Your task to perform on an android device: open app "NewsBreak: Local News & Alerts" (install if not already installed) and go to login screen Image 0: 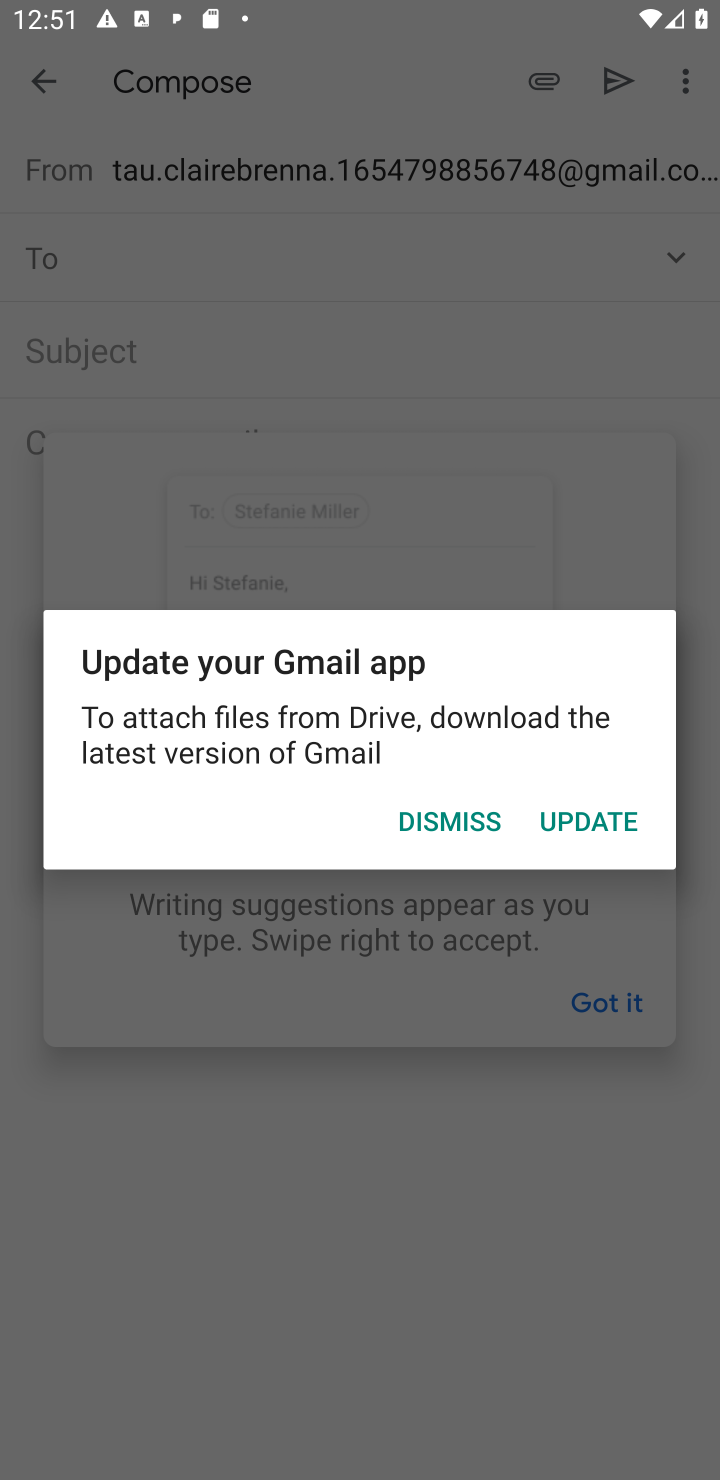
Step 0: press home button
Your task to perform on an android device: open app "NewsBreak: Local News & Alerts" (install if not already installed) and go to login screen Image 1: 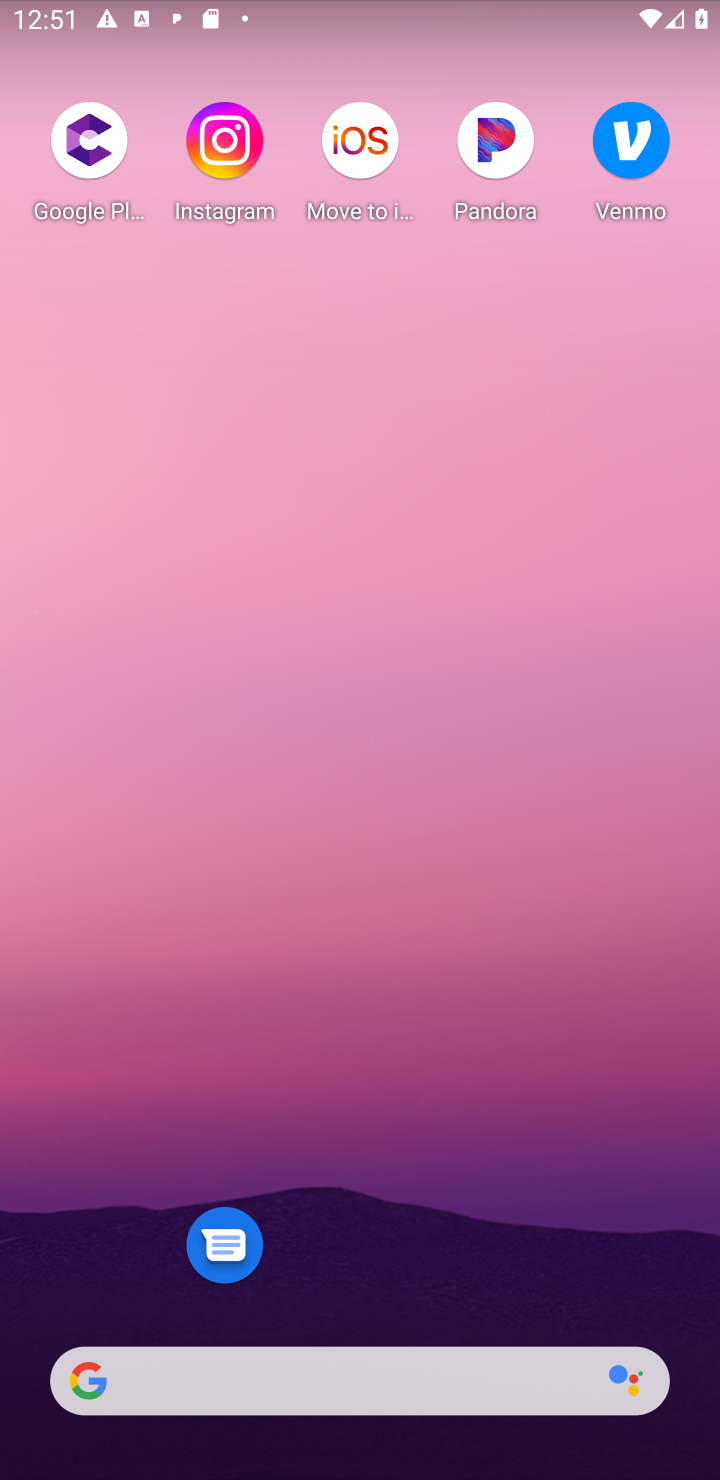
Step 1: drag from (415, 1216) to (385, 415)
Your task to perform on an android device: open app "NewsBreak: Local News & Alerts" (install if not already installed) and go to login screen Image 2: 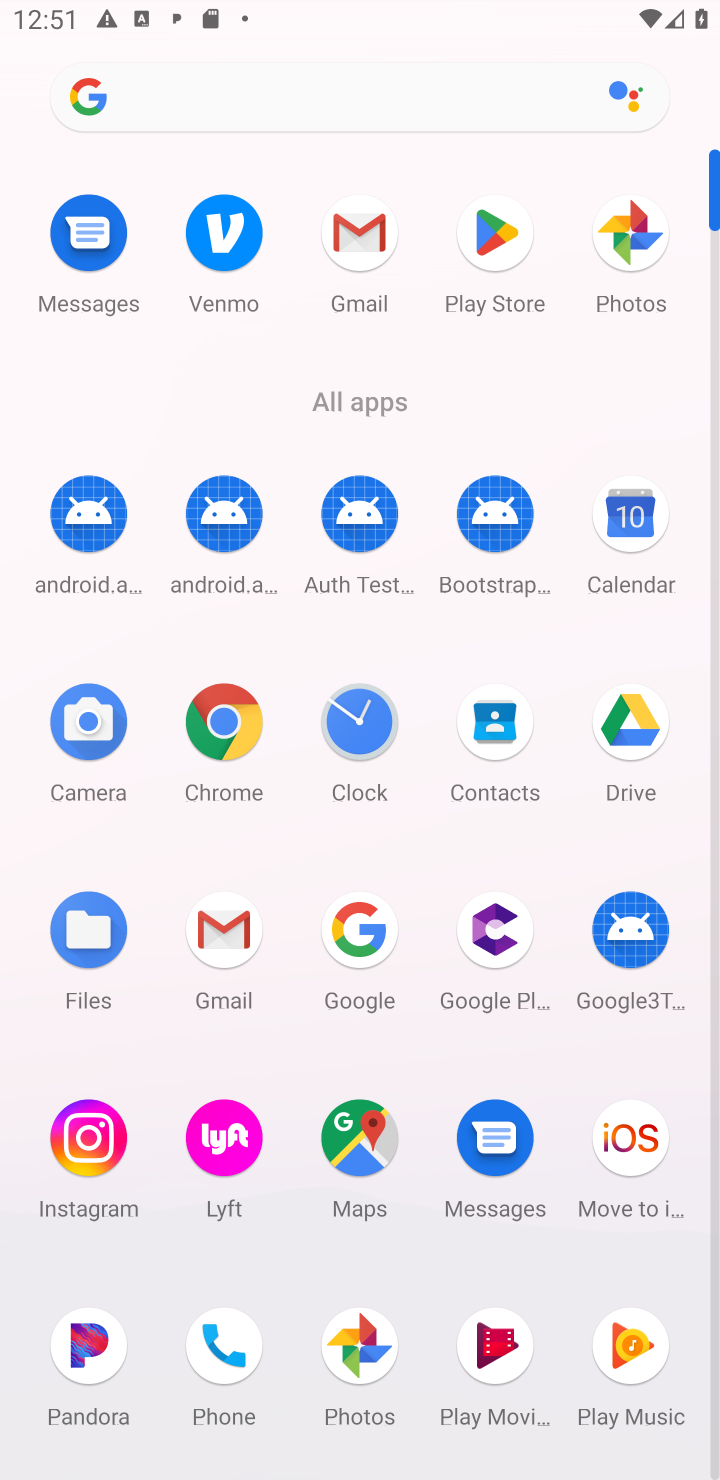
Step 2: click (484, 227)
Your task to perform on an android device: open app "NewsBreak: Local News & Alerts" (install if not already installed) and go to login screen Image 3: 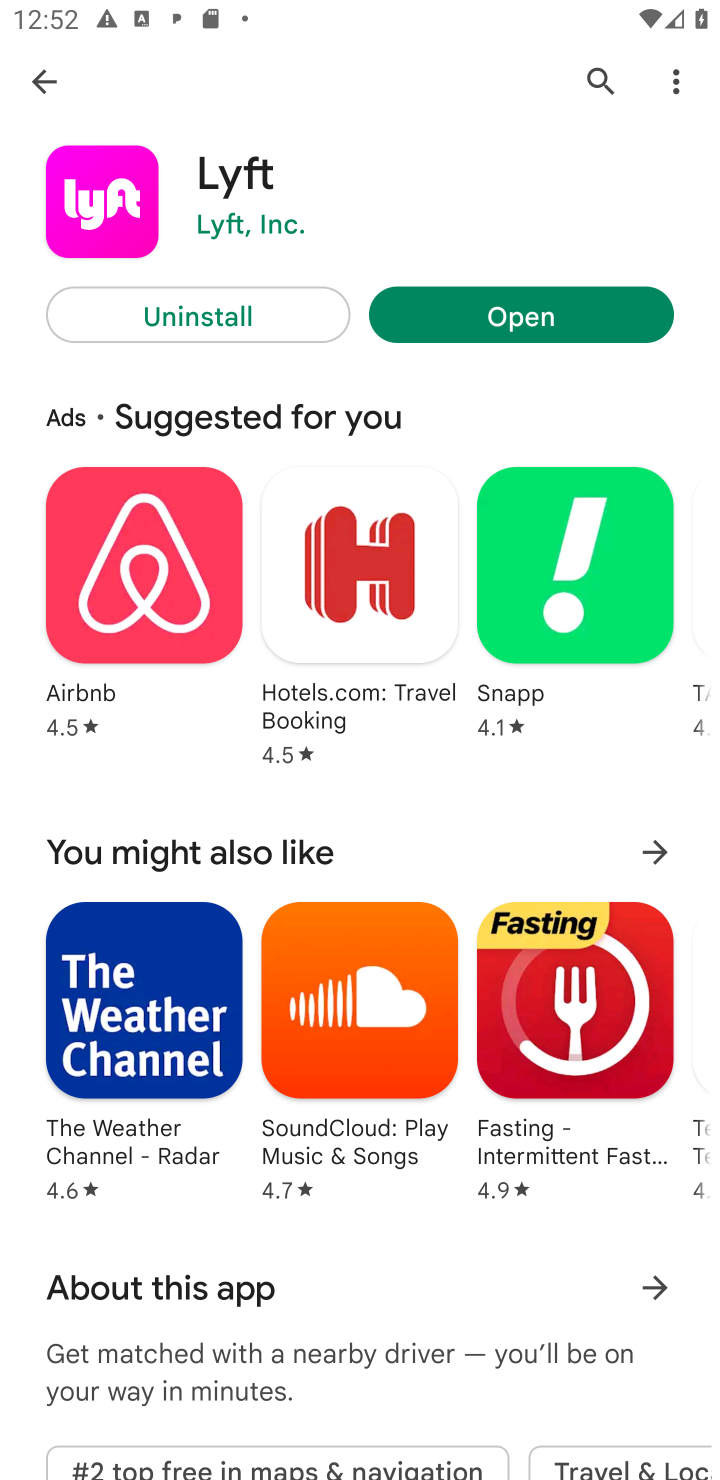
Step 3: click (594, 73)
Your task to perform on an android device: open app "NewsBreak: Local News & Alerts" (install if not already installed) and go to login screen Image 4: 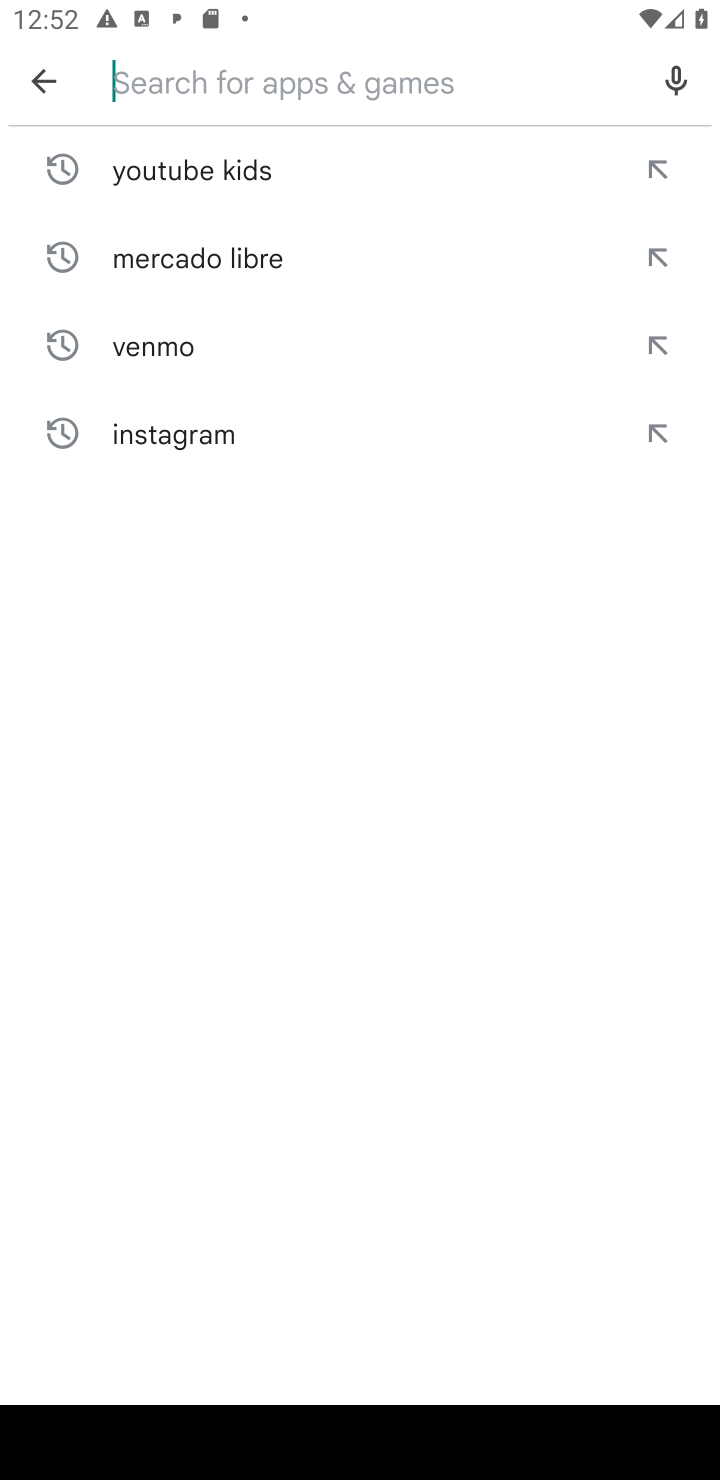
Step 4: click (141, 70)
Your task to perform on an android device: open app "NewsBreak: Local News & Alerts" (install if not already installed) and go to login screen Image 5: 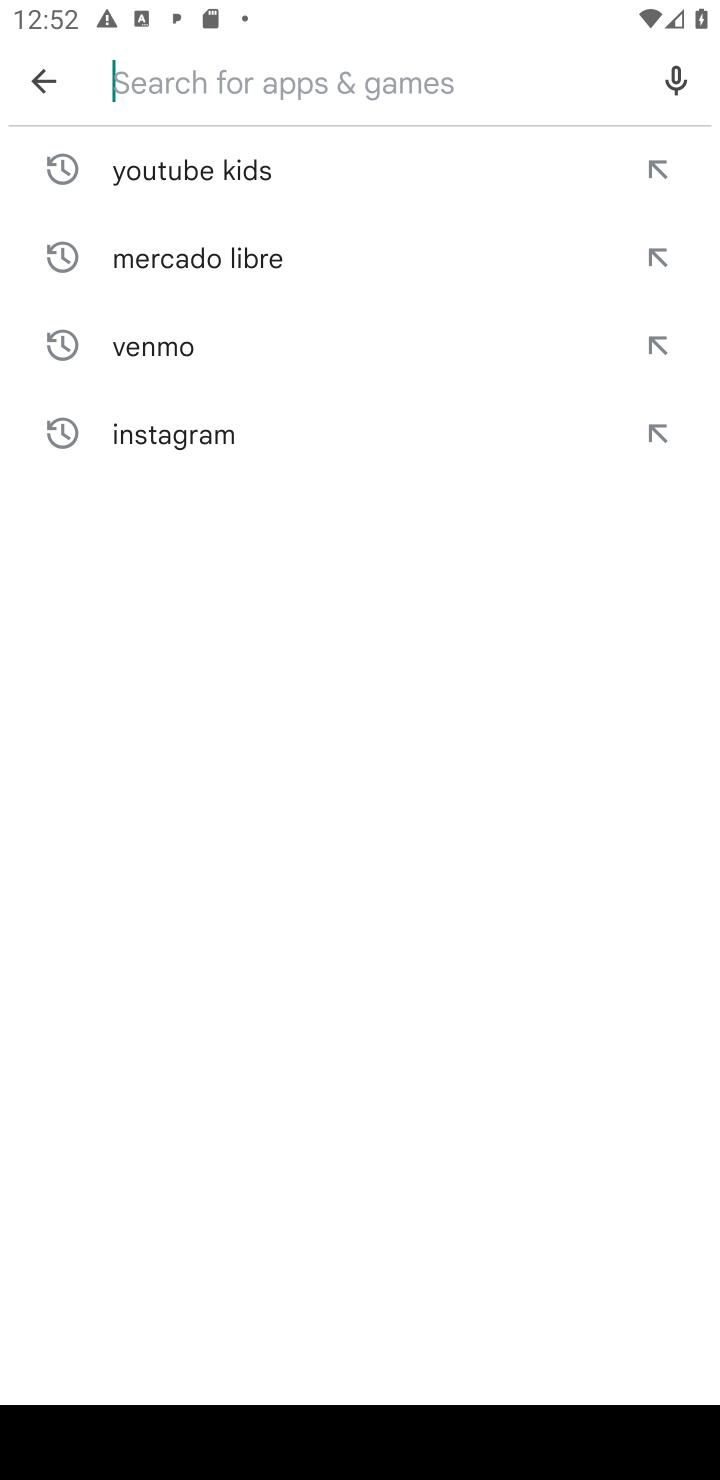
Step 5: type "NewsBreak: Local News & Alerts"
Your task to perform on an android device: open app "NewsBreak: Local News & Alerts" (install if not already installed) and go to login screen Image 6: 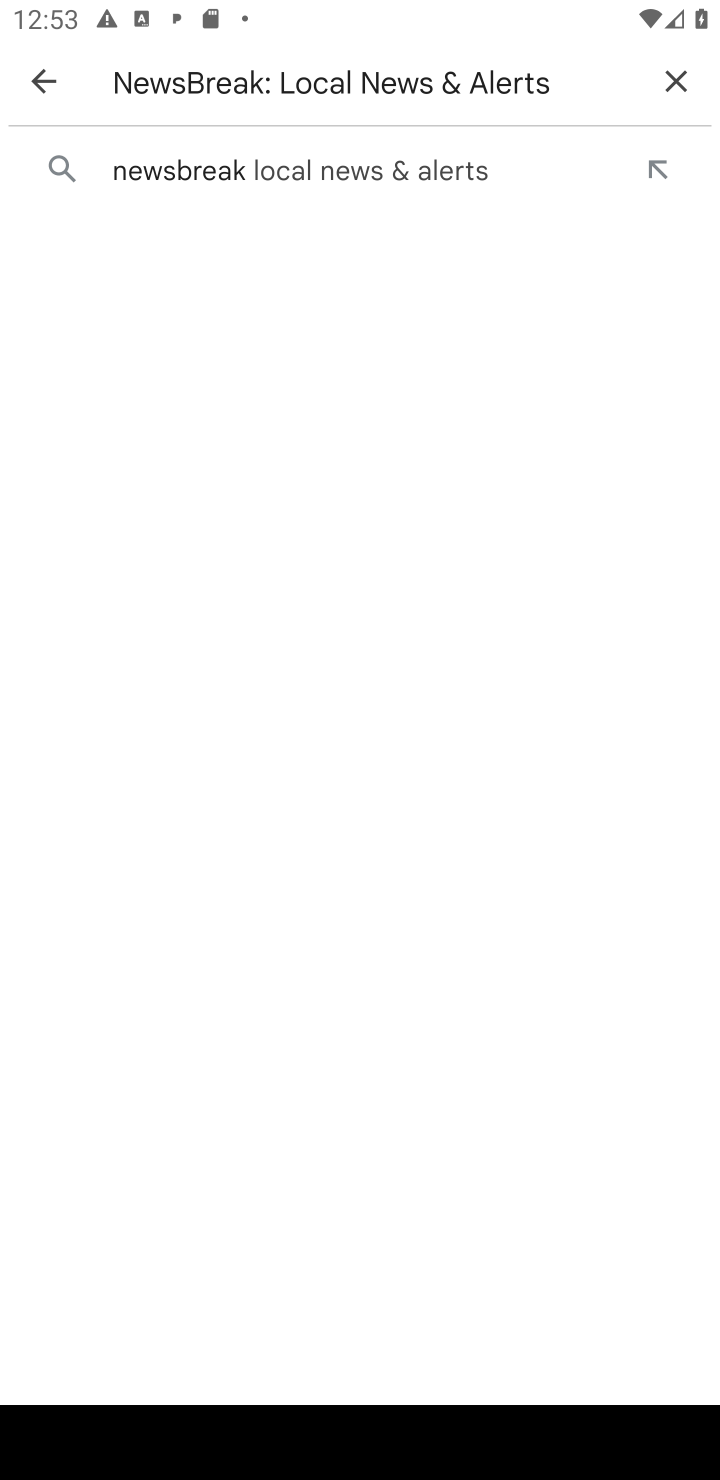
Step 6: click (197, 169)
Your task to perform on an android device: open app "NewsBreak: Local News & Alerts" (install if not already installed) and go to login screen Image 7: 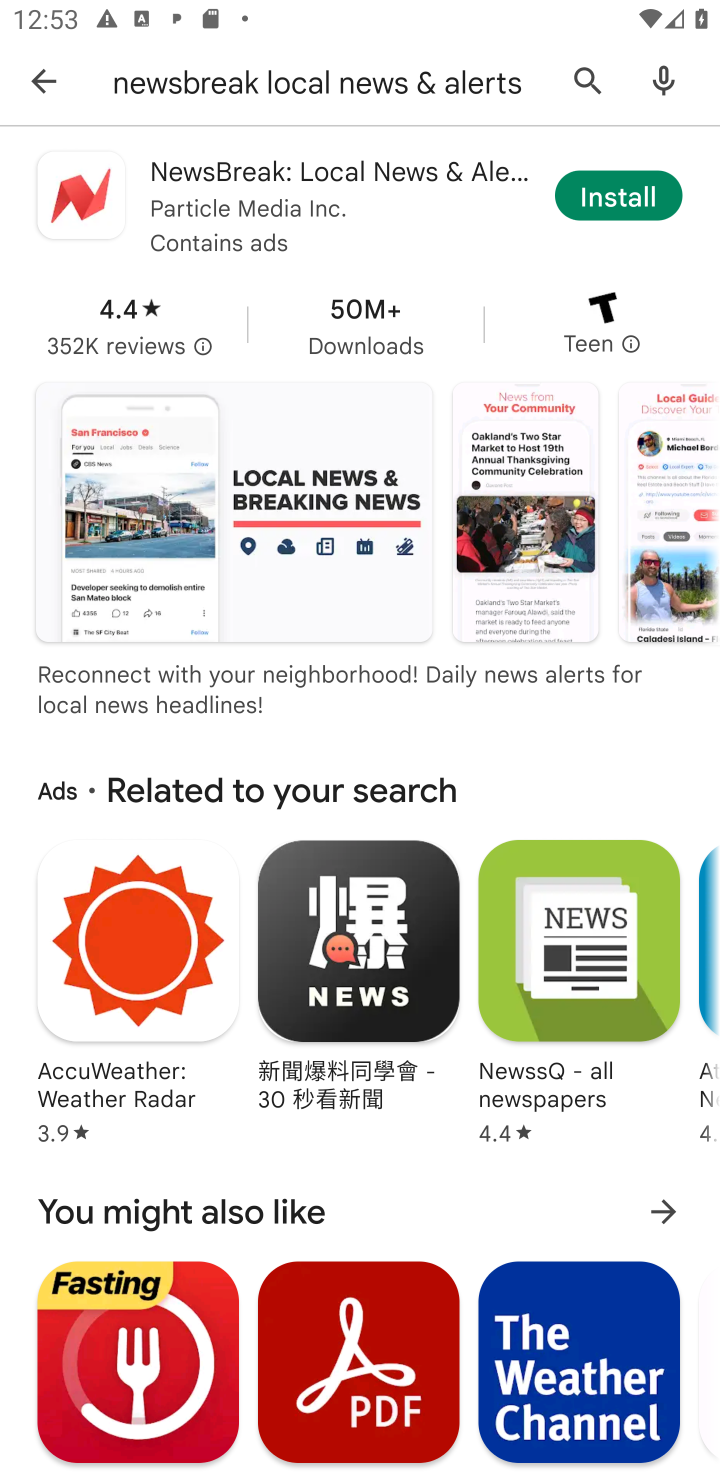
Step 7: click (608, 193)
Your task to perform on an android device: open app "NewsBreak: Local News & Alerts" (install if not already installed) and go to login screen Image 8: 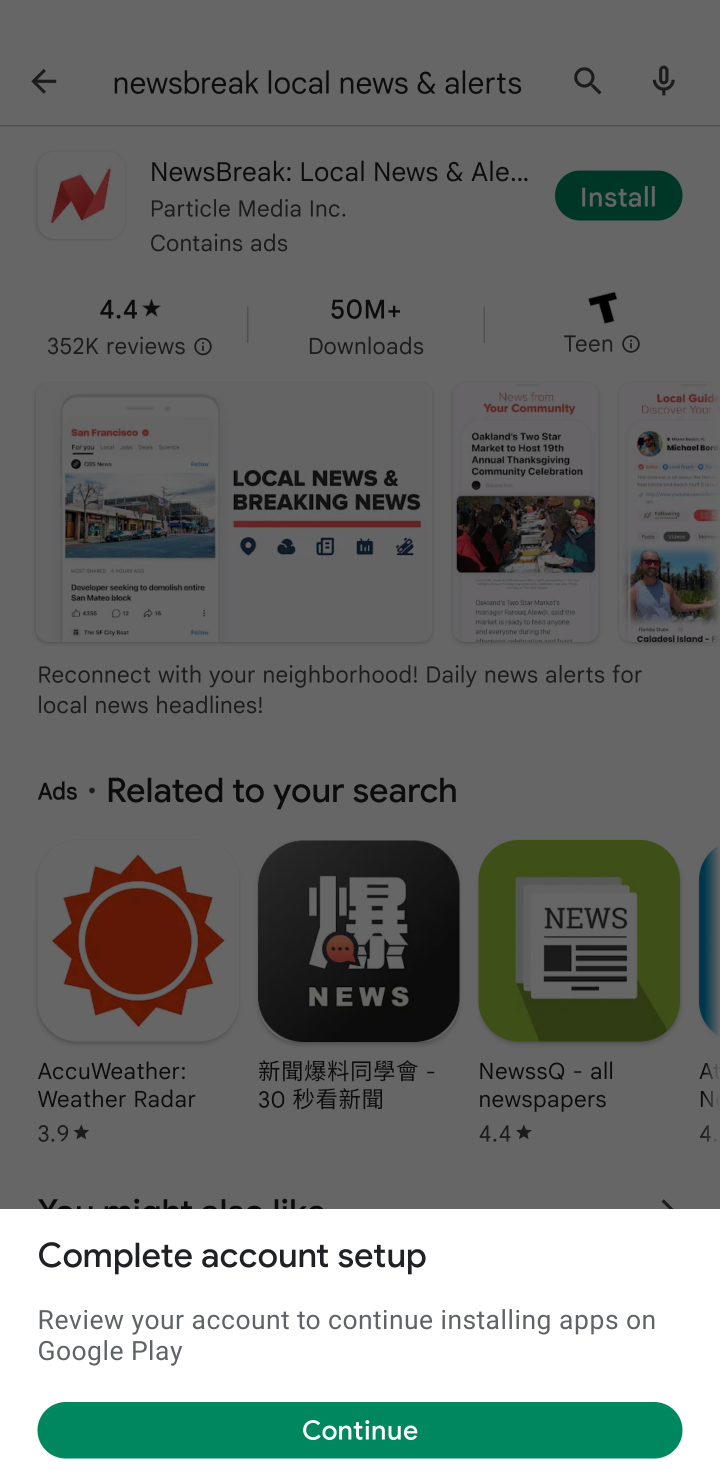
Step 8: click (363, 1452)
Your task to perform on an android device: open app "NewsBreak: Local News & Alerts" (install if not already installed) and go to login screen Image 9: 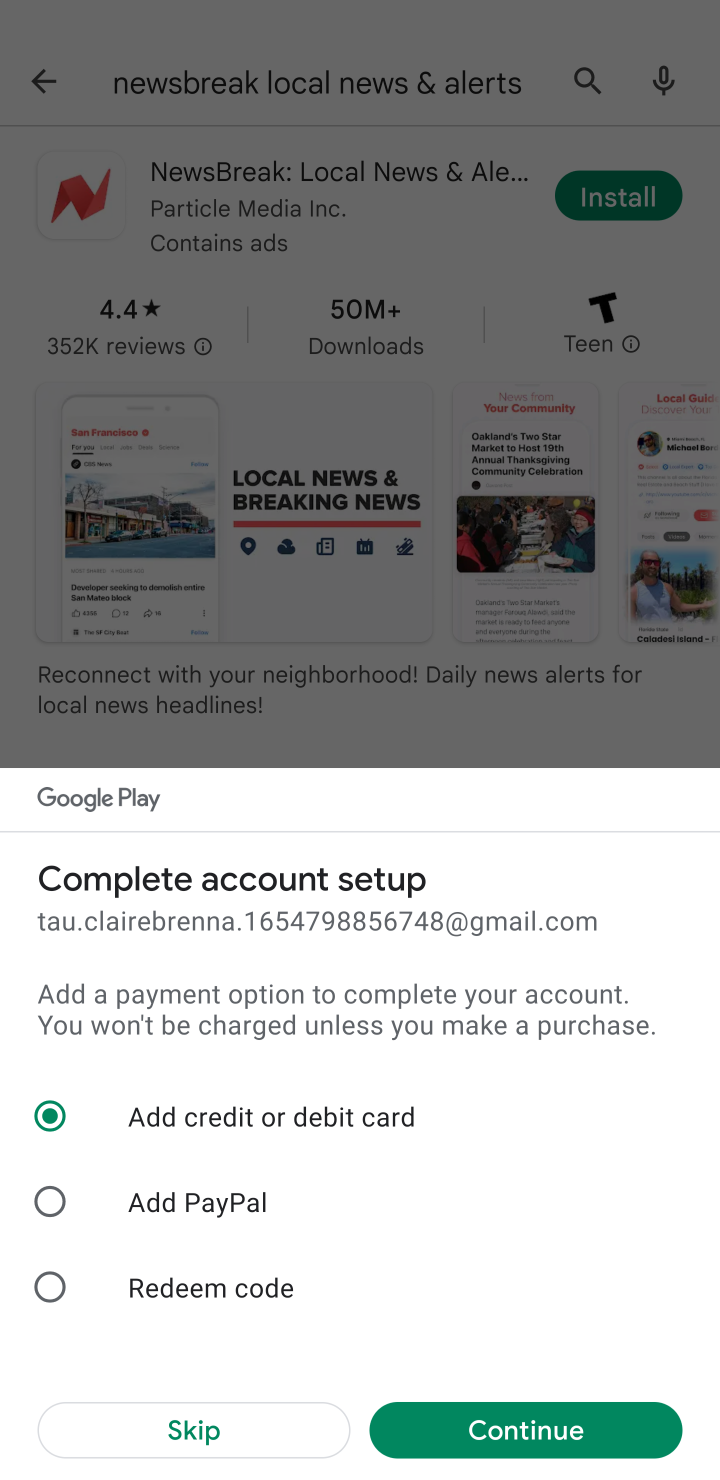
Step 9: click (253, 1416)
Your task to perform on an android device: open app "NewsBreak: Local News & Alerts" (install if not already installed) and go to login screen Image 10: 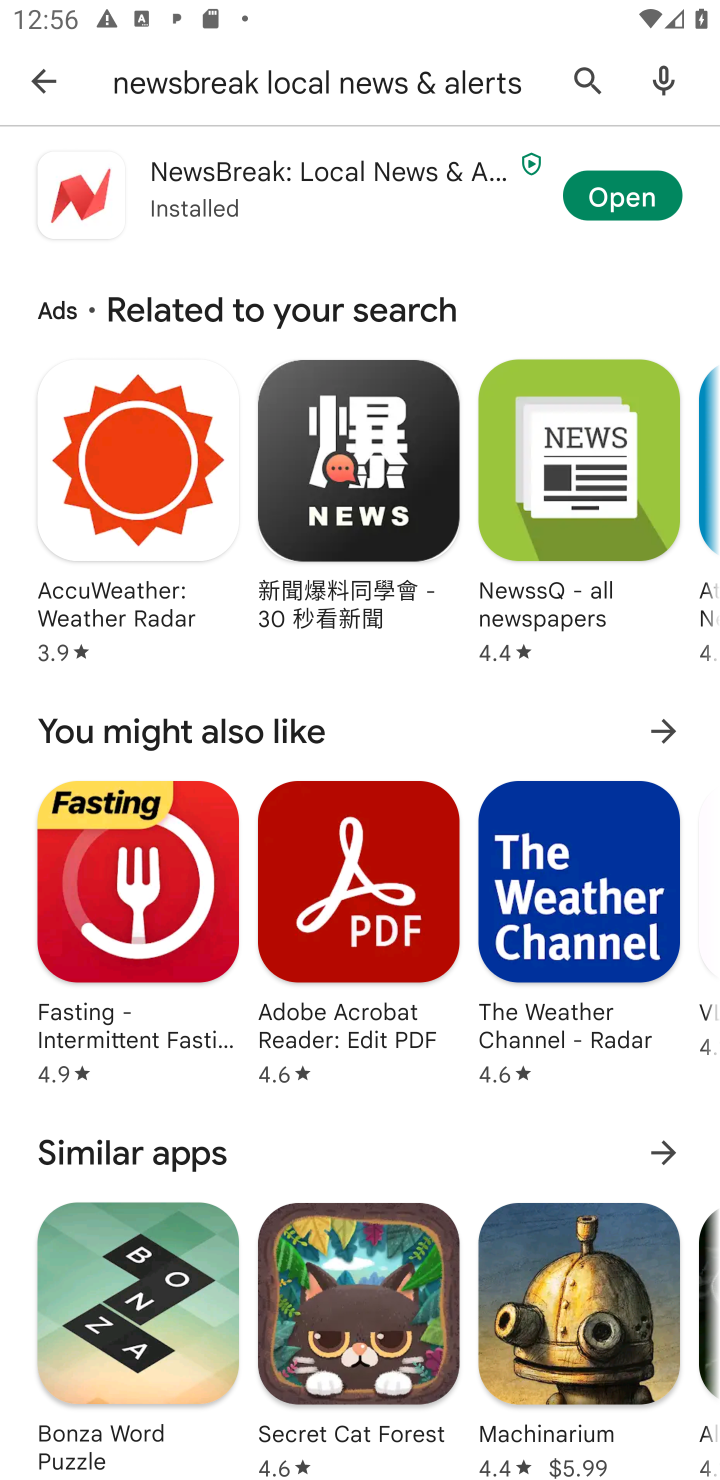
Step 10: click (578, 208)
Your task to perform on an android device: open app "NewsBreak: Local News & Alerts" (install if not already installed) and go to login screen Image 11: 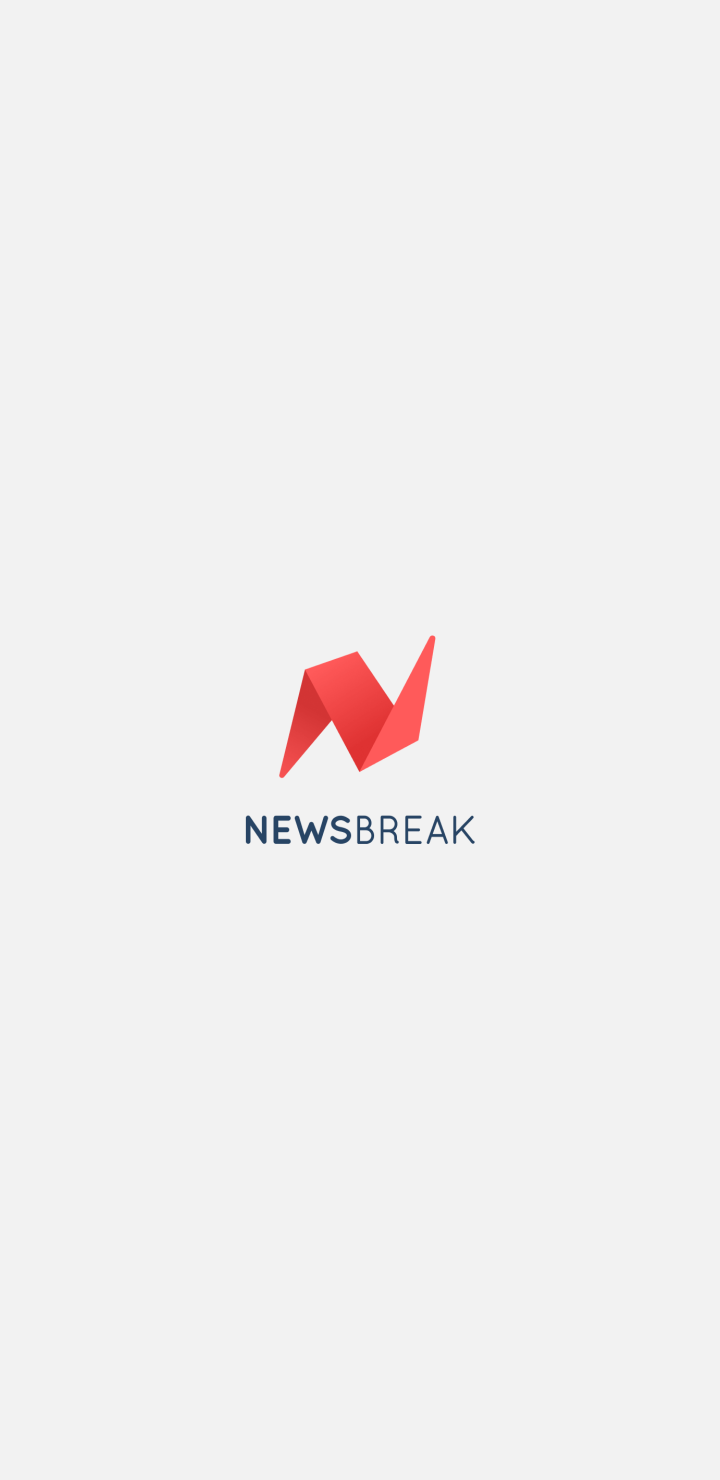
Step 11: task complete